Your task to perform on an android device: delete location history Image 0: 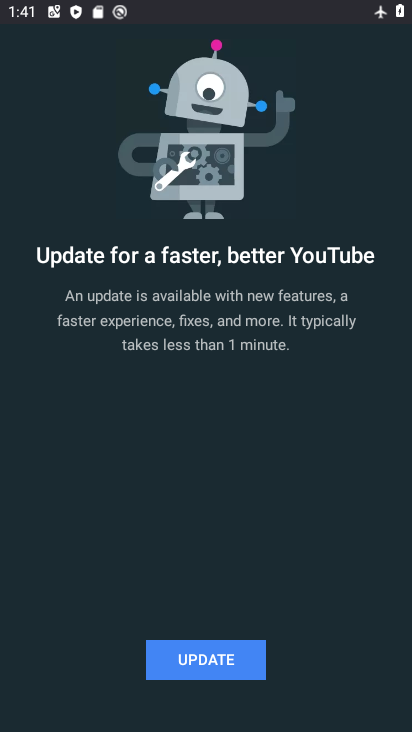
Step 0: press home button
Your task to perform on an android device: delete location history Image 1: 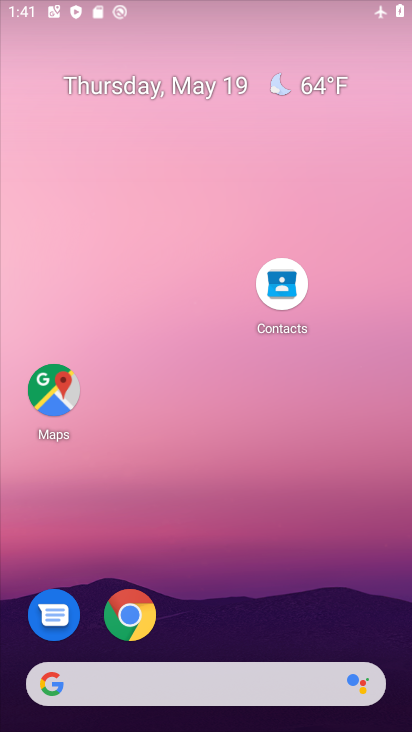
Step 1: drag from (203, 626) to (158, 2)
Your task to perform on an android device: delete location history Image 2: 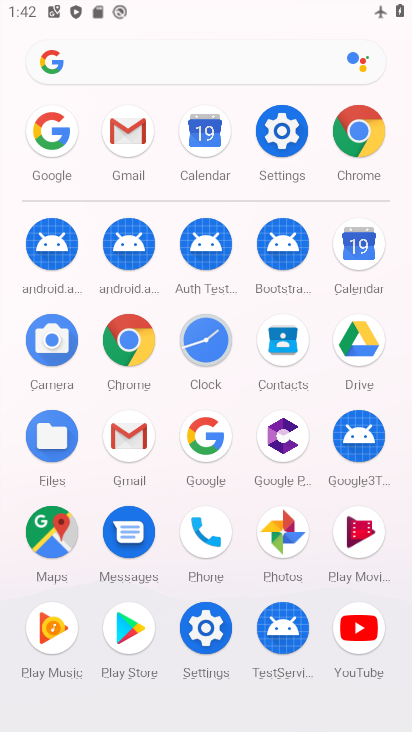
Step 2: click (280, 148)
Your task to perform on an android device: delete location history Image 3: 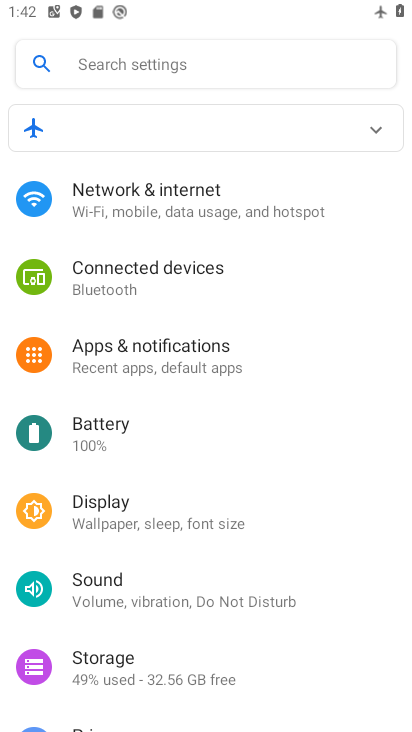
Step 3: drag from (171, 531) to (218, 144)
Your task to perform on an android device: delete location history Image 4: 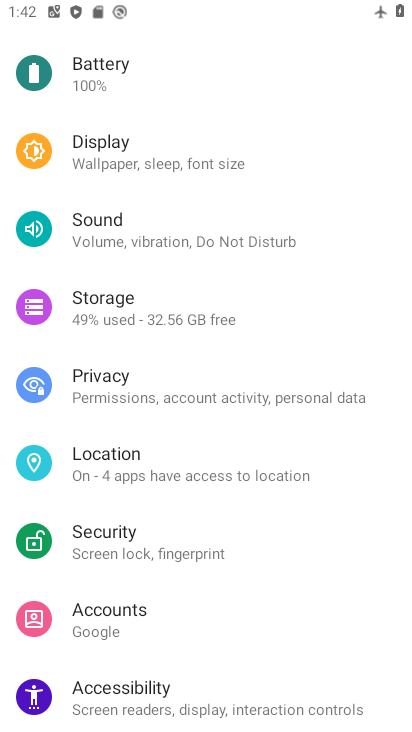
Step 4: click (164, 482)
Your task to perform on an android device: delete location history Image 5: 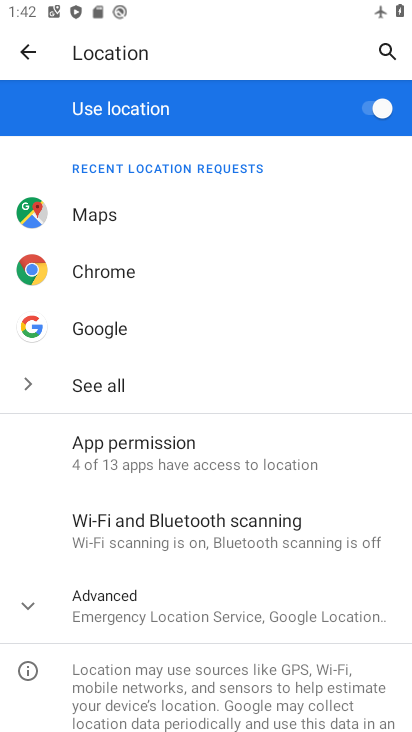
Step 5: click (177, 610)
Your task to perform on an android device: delete location history Image 6: 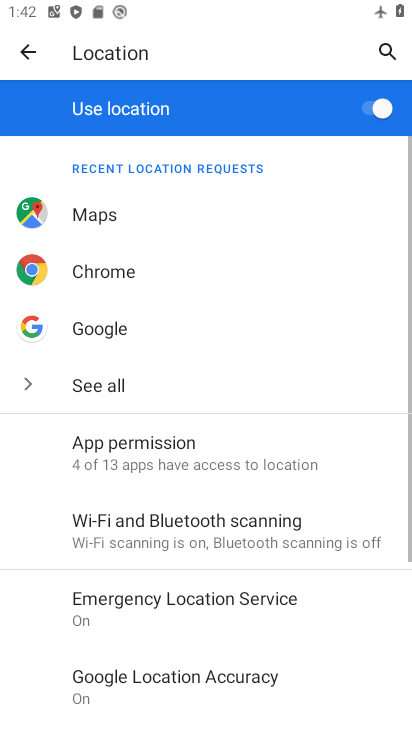
Step 6: drag from (177, 610) to (176, 216)
Your task to perform on an android device: delete location history Image 7: 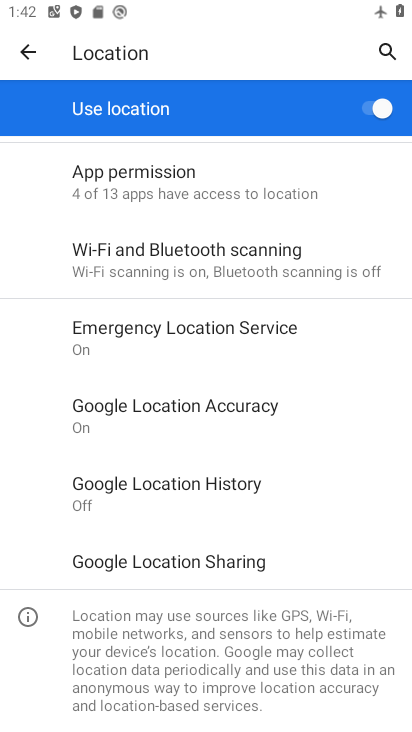
Step 7: click (163, 491)
Your task to perform on an android device: delete location history Image 8: 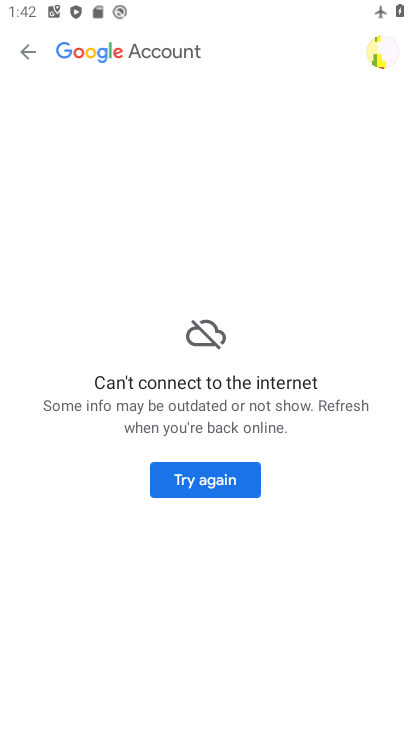
Step 8: task complete